Your task to perform on an android device: turn off priority inbox in the gmail app Image 0: 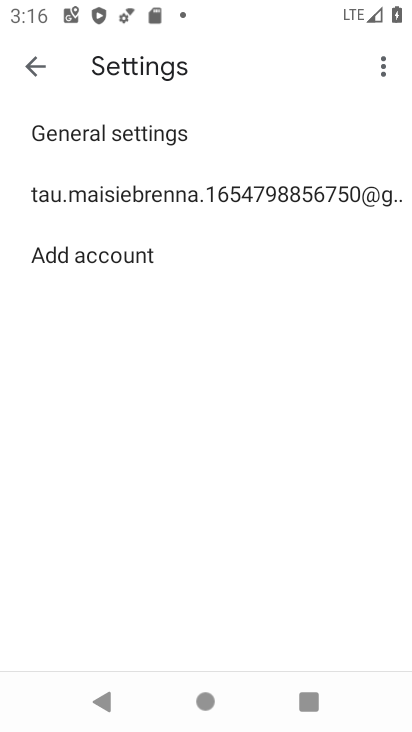
Step 0: click (328, 194)
Your task to perform on an android device: turn off priority inbox in the gmail app Image 1: 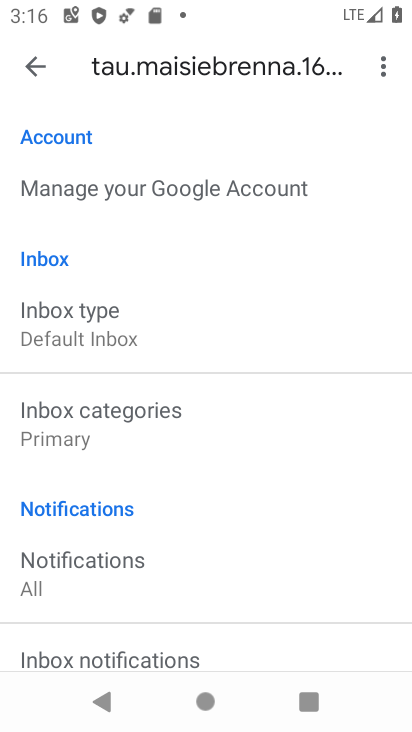
Step 1: click (109, 323)
Your task to perform on an android device: turn off priority inbox in the gmail app Image 2: 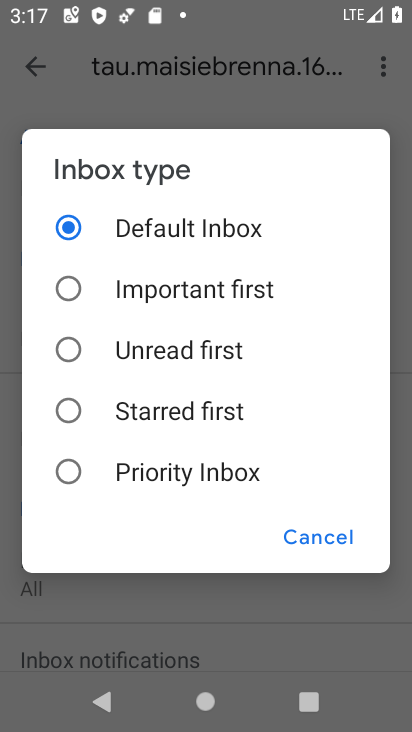
Step 2: click (299, 532)
Your task to perform on an android device: turn off priority inbox in the gmail app Image 3: 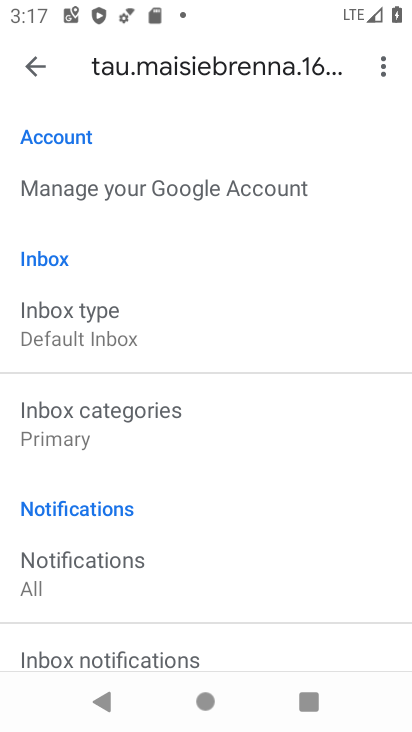
Step 3: task complete